Your task to perform on an android device: change timer sound Image 0: 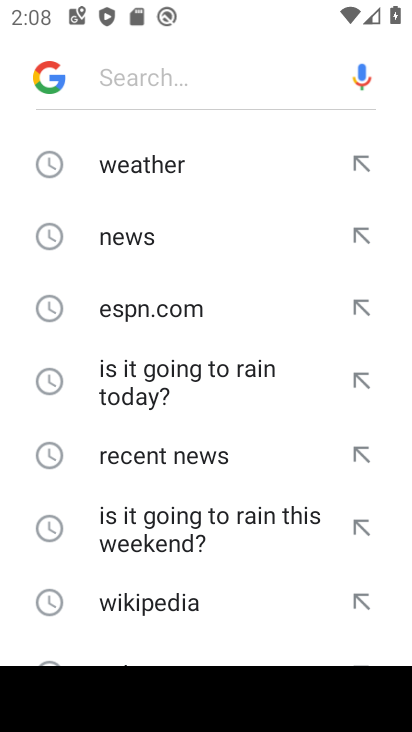
Step 0: press back button
Your task to perform on an android device: change timer sound Image 1: 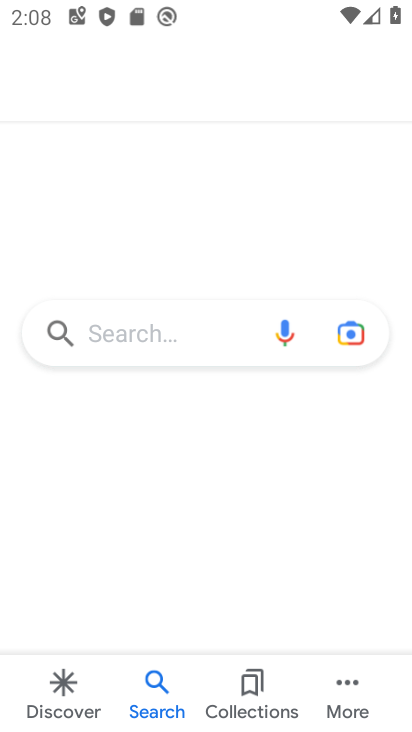
Step 1: press back button
Your task to perform on an android device: change timer sound Image 2: 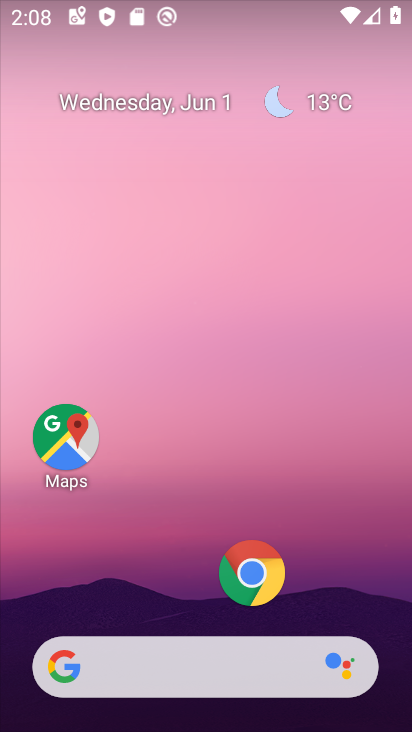
Step 2: drag from (227, 626) to (110, 110)
Your task to perform on an android device: change timer sound Image 3: 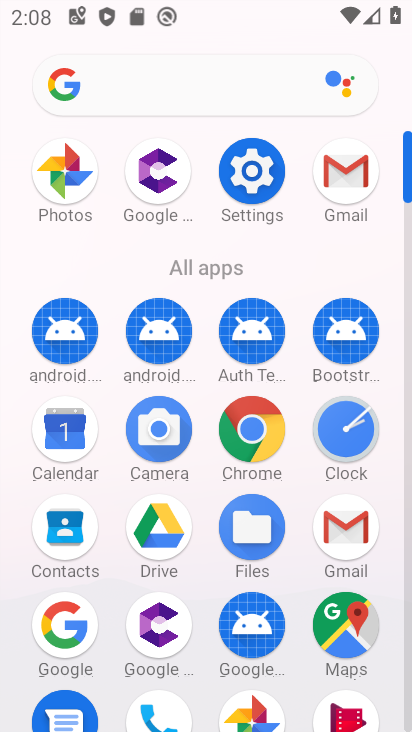
Step 3: click (345, 424)
Your task to perform on an android device: change timer sound Image 4: 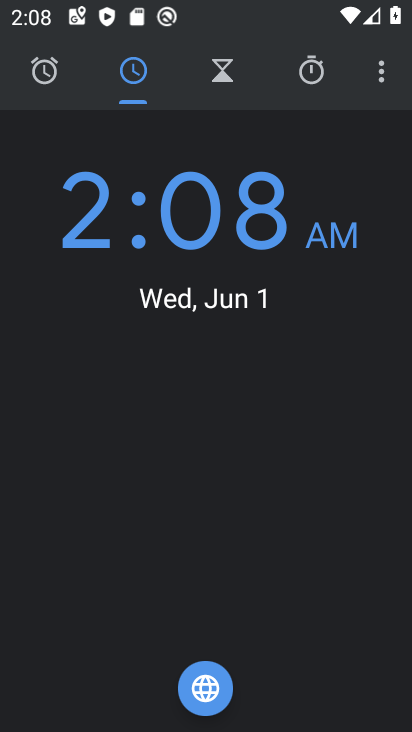
Step 4: click (369, 80)
Your task to perform on an android device: change timer sound Image 5: 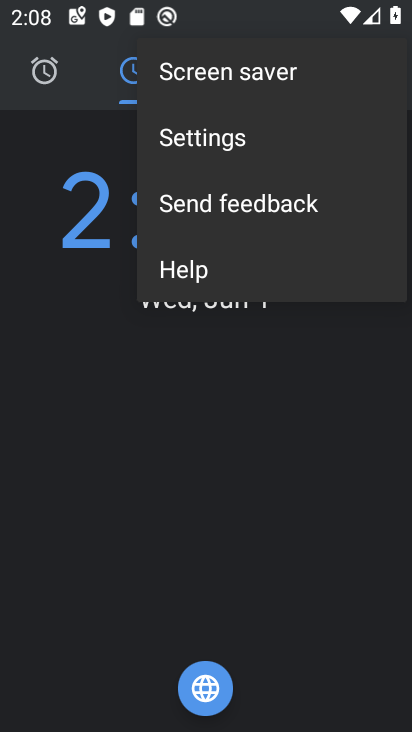
Step 5: click (218, 137)
Your task to perform on an android device: change timer sound Image 6: 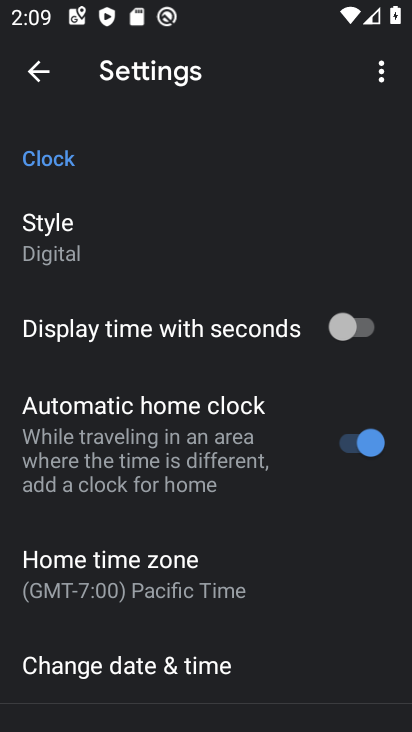
Step 6: drag from (118, 603) to (52, 180)
Your task to perform on an android device: change timer sound Image 7: 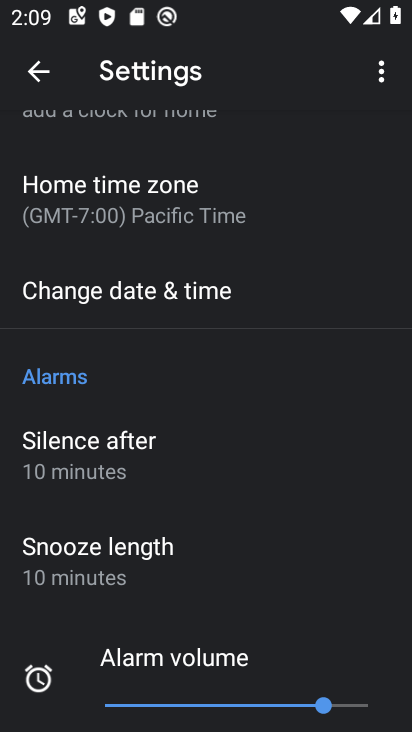
Step 7: drag from (108, 540) to (87, 171)
Your task to perform on an android device: change timer sound Image 8: 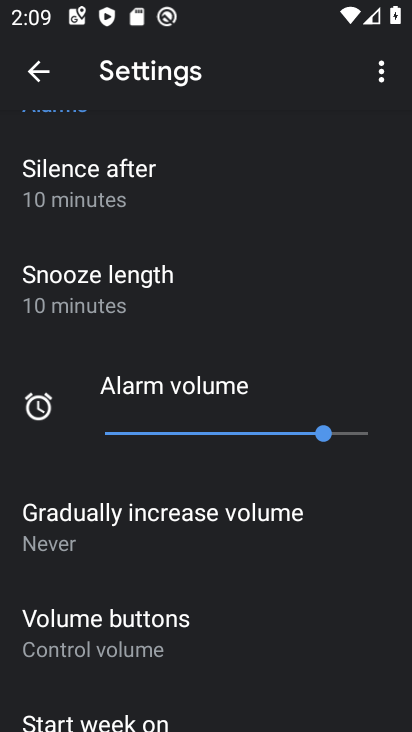
Step 8: drag from (142, 607) to (84, 198)
Your task to perform on an android device: change timer sound Image 9: 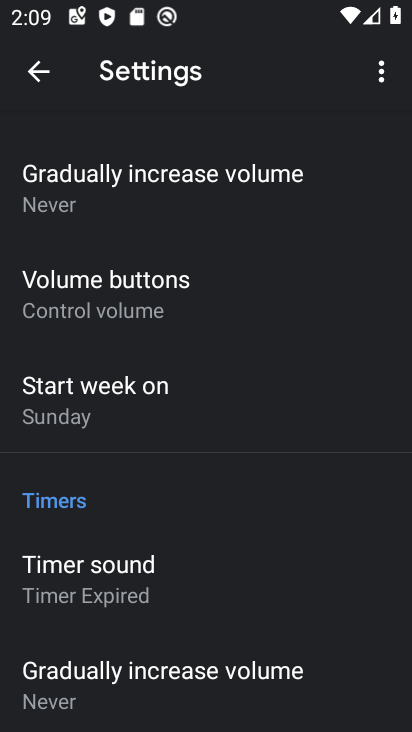
Step 9: click (122, 573)
Your task to perform on an android device: change timer sound Image 10: 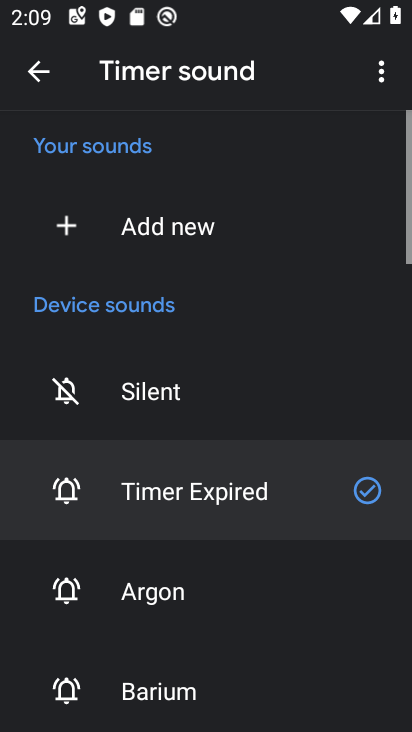
Step 10: click (130, 380)
Your task to perform on an android device: change timer sound Image 11: 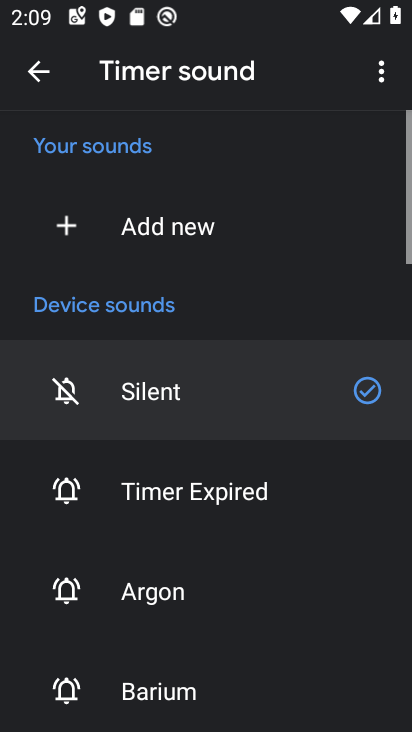
Step 11: task complete